Your task to perform on an android device: turn off improve location accuracy Image 0: 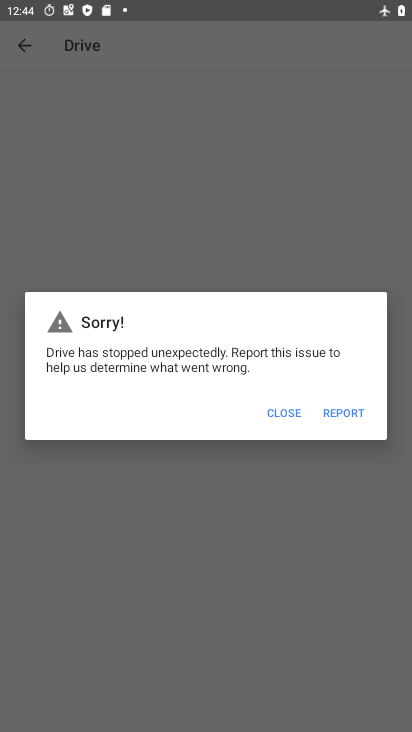
Step 0: press home button
Your task to perform on an android device: turn off improve location accuracy Image 1: 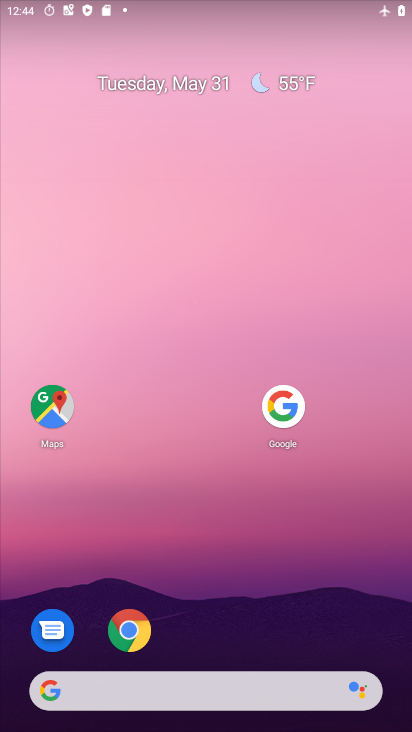
Step 1: drag from (192, 697) to (278, 323)
Your task to perform on an android device: turn off improve location accuracy Image 2: 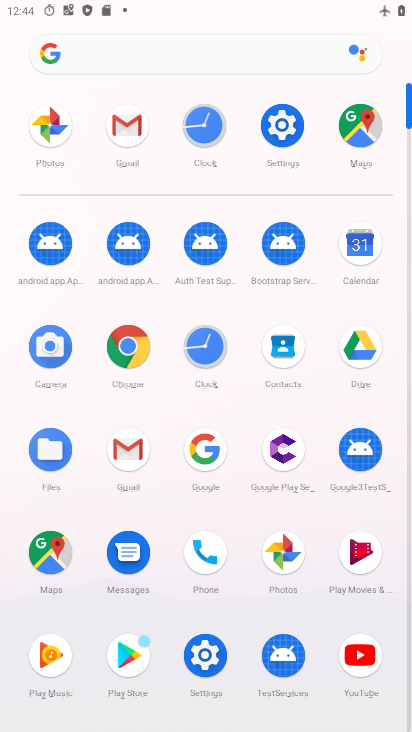
Step 2: click (282, 127)
Your task to perform on an android device: turn off improve location accuracy Image 3: 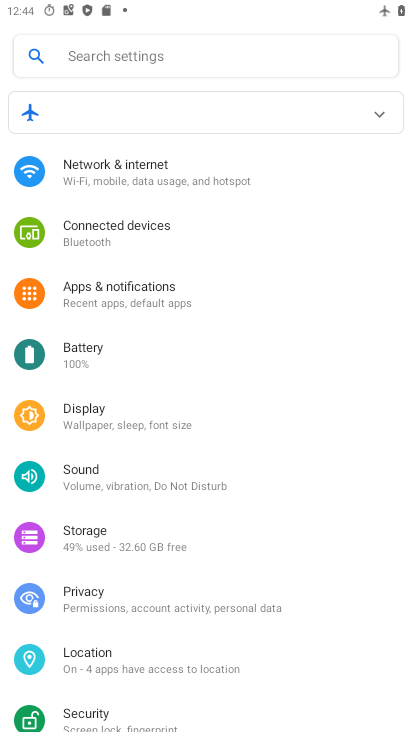
Step 3: click (111, 671)
Your task to perform on an android device: turn off improve location accuracy Image 4: 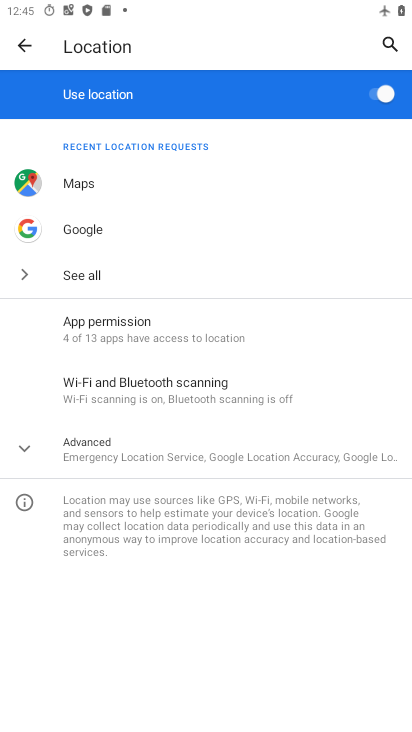
Step 4: click (204, 452)
Your task to perform on an android device: turn off improve location accuracy Image 5: 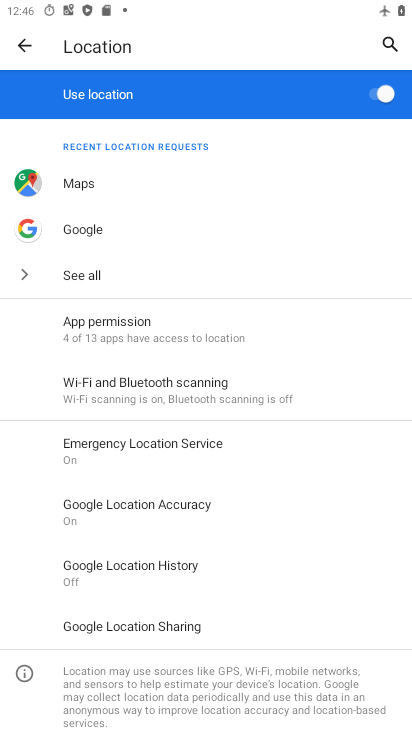
Step 5: click (141, 528)
Your task to perform on an android device: turn off improve location accuracy Image 6: 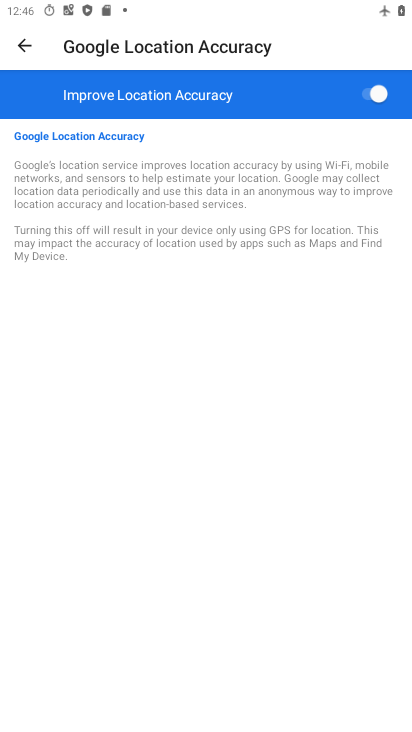
Step 6: task complete